Your task to perform on an android device: Go to privacy settings Image 0: 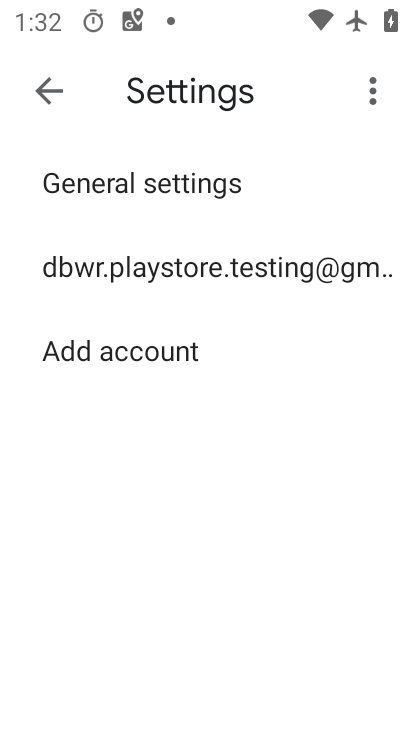
Step 0: press home button
Your task to perform on an android device: Go to privacy settings Image 1: 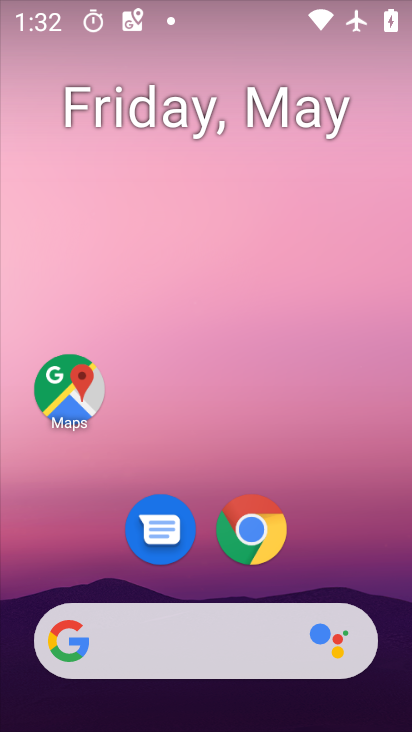
Step 1: drag from (273, 586) to (319, 136)
Your task to perform on an android device: Go to privacy settings Image 2: 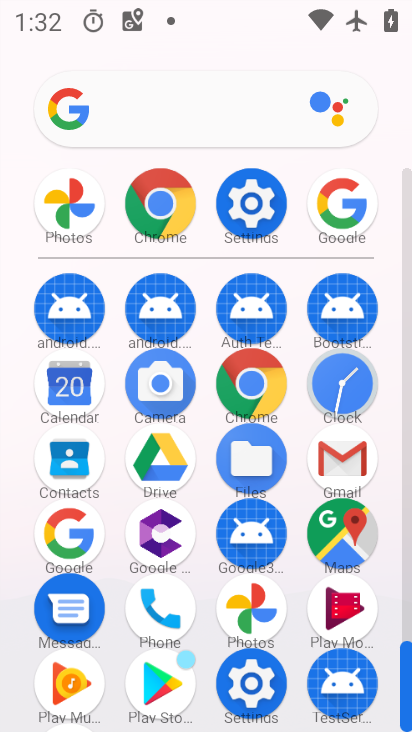
Step 2: click (242, 235)
Your task to perform on an android device: Go to privacy settings Image 3: 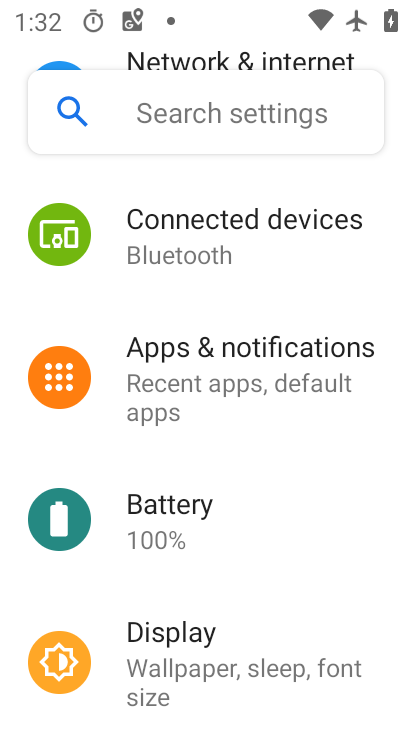
Step 3: drag from (174, 548) to (259, 209)
Your task to perform on an android device: Go to privacy settings Image 4: 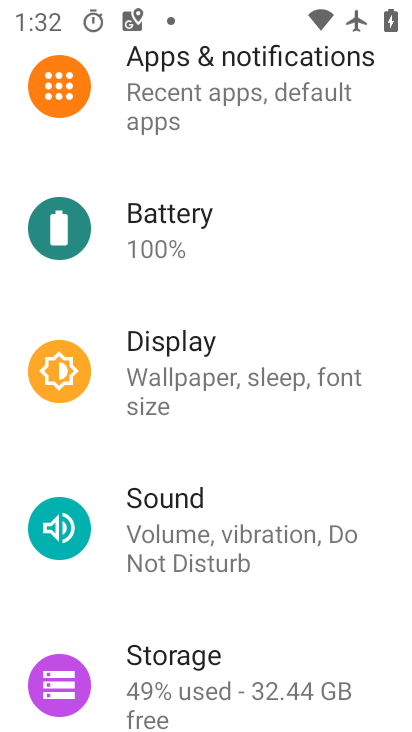
Step 4: drag from (208, 540) to (270, 263)
Your task to perform on an android device: Go to privacy settings Image 5: 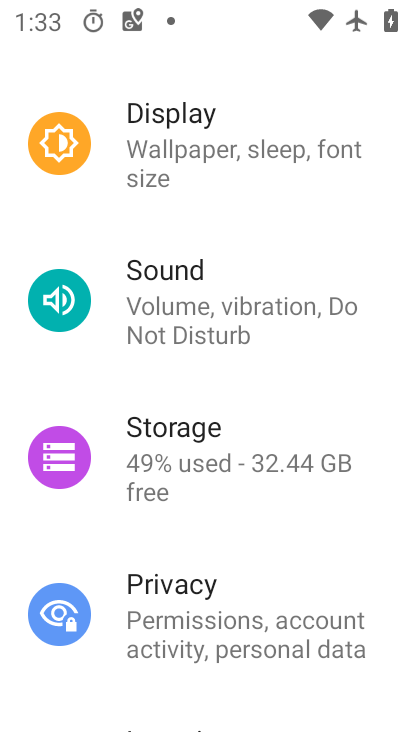
Step 5: click (216, 625)
Your task to perform on an android device: Go to privacy settings Image 6: 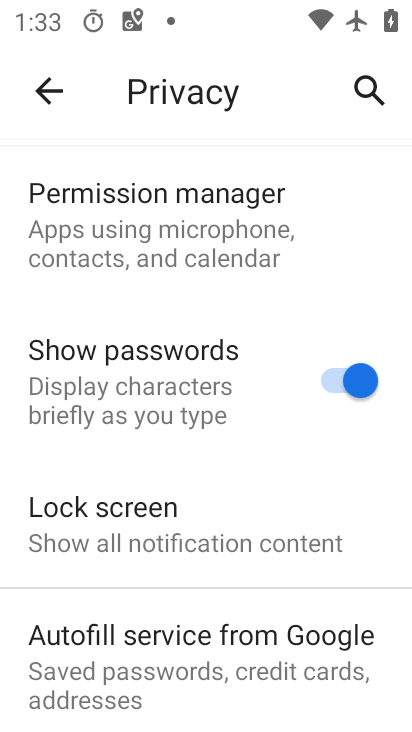
Step 6: task complete